Your task to perform on an android device: change text size in settings app Image 0: 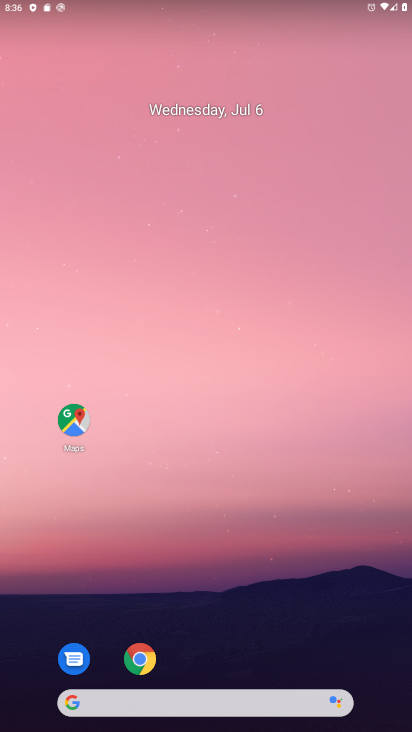
Step 0: drag from (284, 656) to (383, 4)
Your task to perform on an android device: change text size in settings app Image 1: 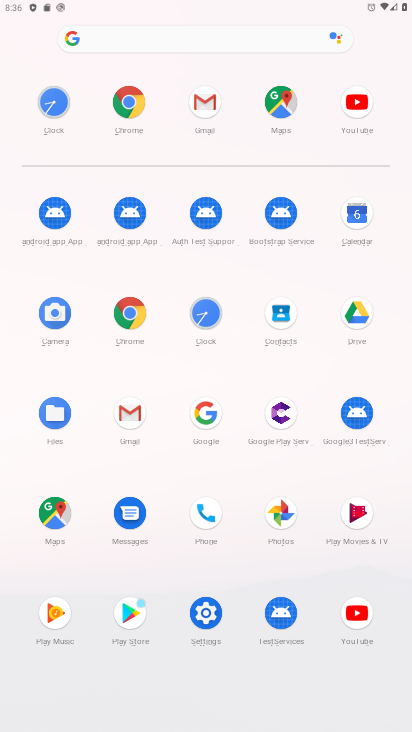
Step 1: click (213, 615)
Your task to perform on an android device: change text size in settings app Image 2: 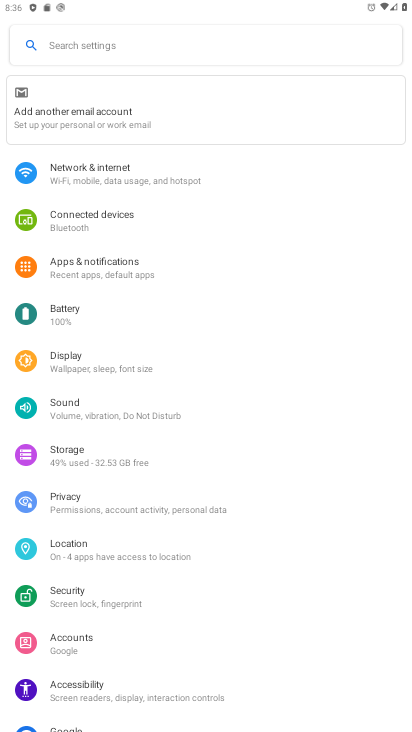
Step 2: drag from (107, 685) to (163, 359)
Your task to perform on an android device: change text size in settings app Image 3: 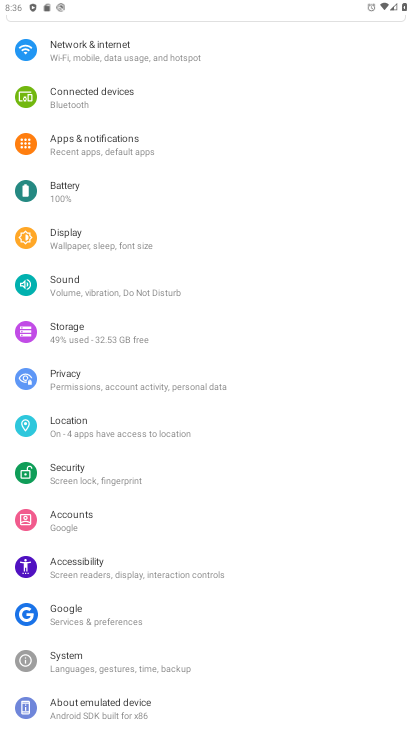
Step 3: click (163, 572)
Your task to perform on an android device: change text size in settings app Image 4: 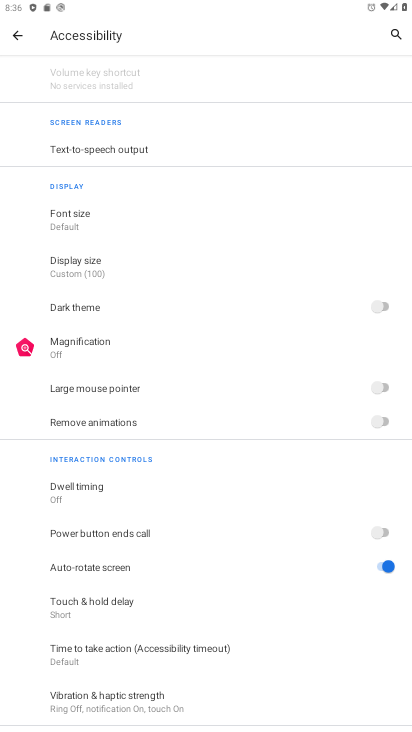
Step 4: click (74, 236)
Your task to perform on an android device: change text size in settings app Image 5: 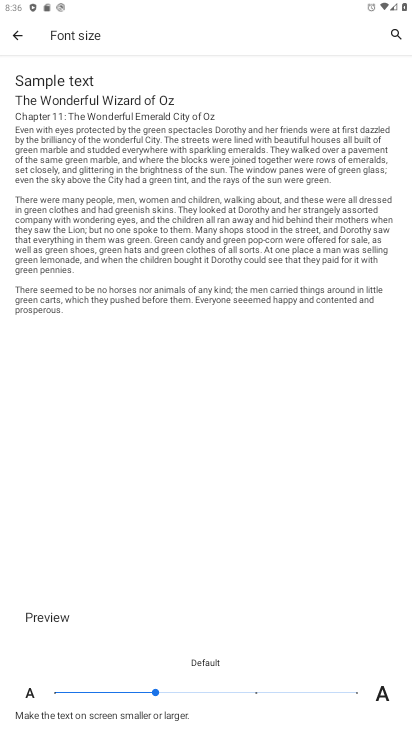
Step 5: click (258, 691)
Your task to perform on an android device: change text size in settings app Image 6: 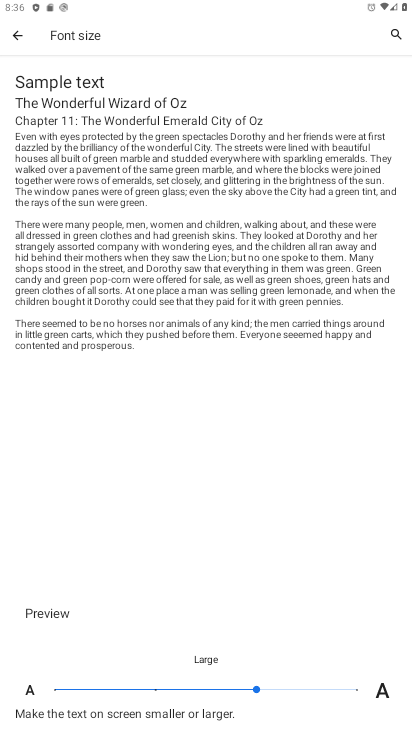
Step 6: task complete